Your task to perform on an android device: Check the news Image 0: 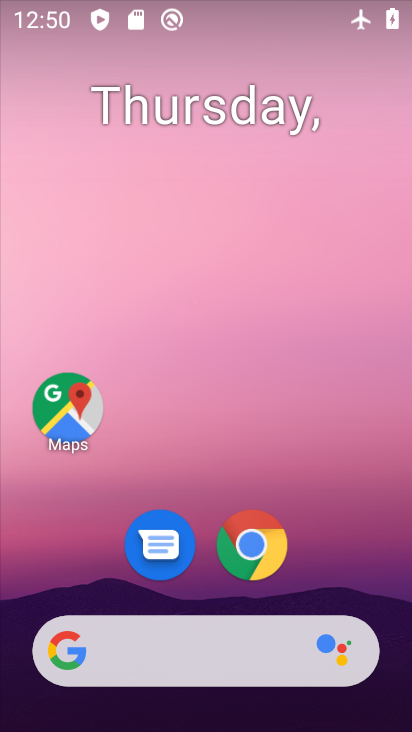
Step 0: click (276, 650)
Your task to perform on an android device: Check the news Image 1: 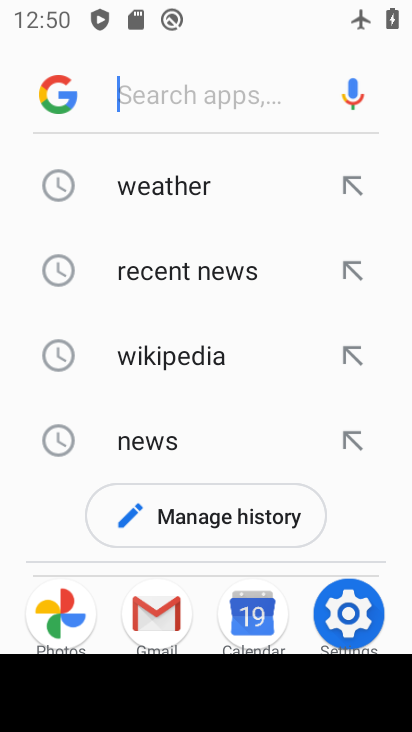
Step 1: click (197, 452)
Your task to perform on an android device: Check the news Image 2: 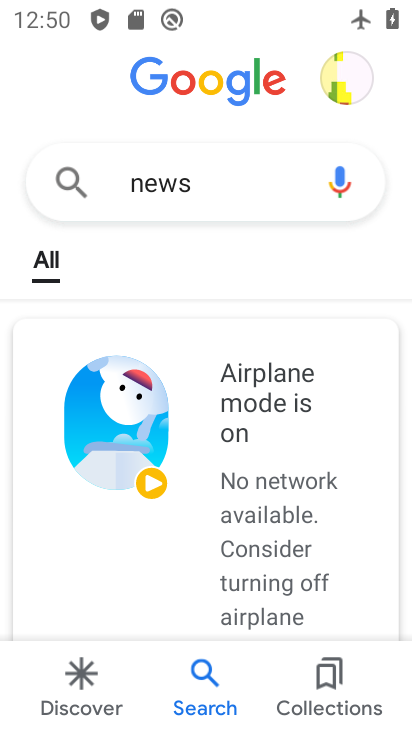
Step 2: task complete